Your task to perform on an android device: What's the weather? Image 0: 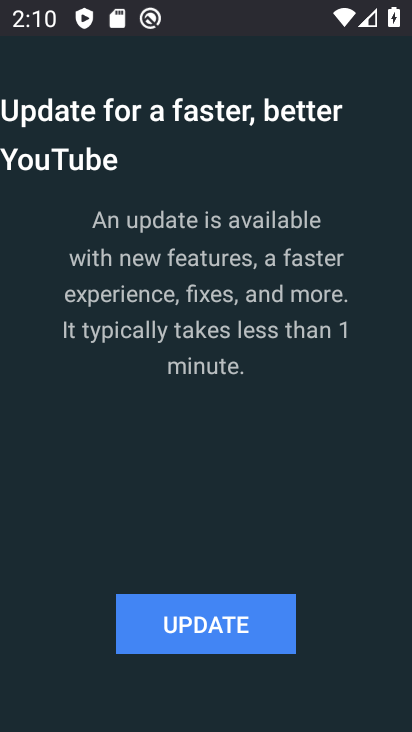
Step 0: press home button
Your task to perform on an android device: What's the weather? Image 1: 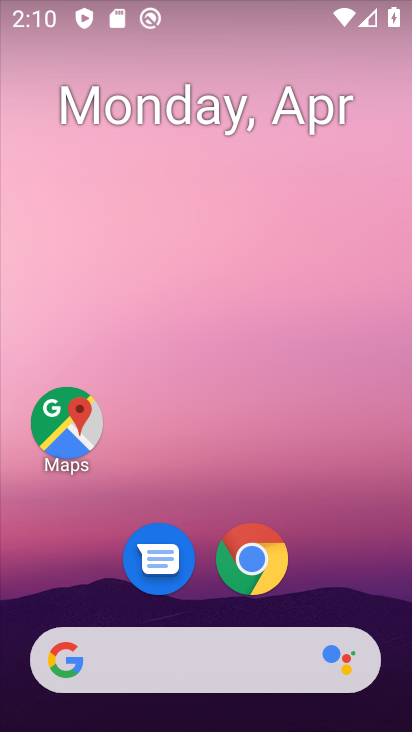
Step 1: click (255, 571)
Your task to perform on an android device: What's the weather? Image 2: 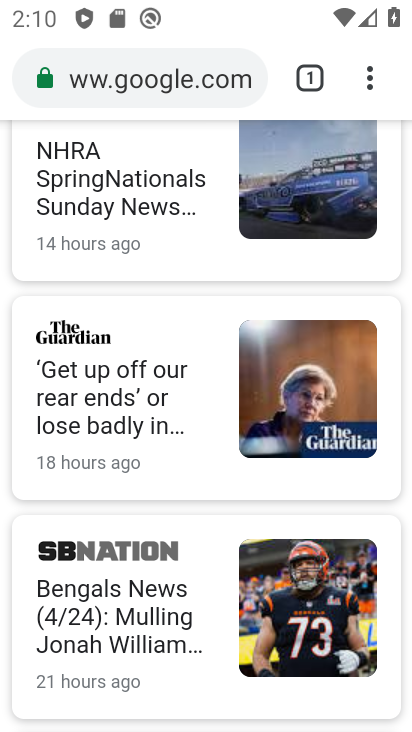
Step 2: click (315, 77)
Your task to perform on an android device: What's the weather? Image 3: 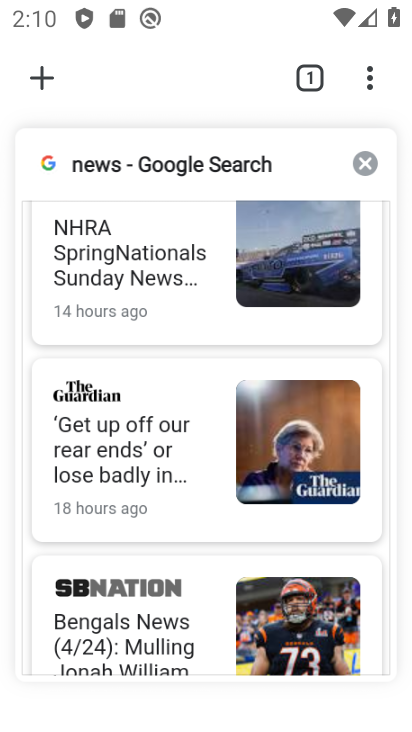
Step 3: click (40, 78)
Your task to perform on an android device: What's the weather? Image 4: 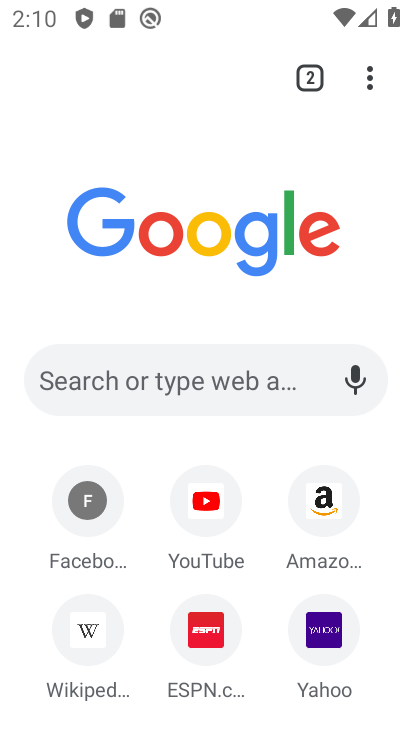
Step 4: click (109, 371)
Your task to perform on an android device: What's the weather? Image 5: 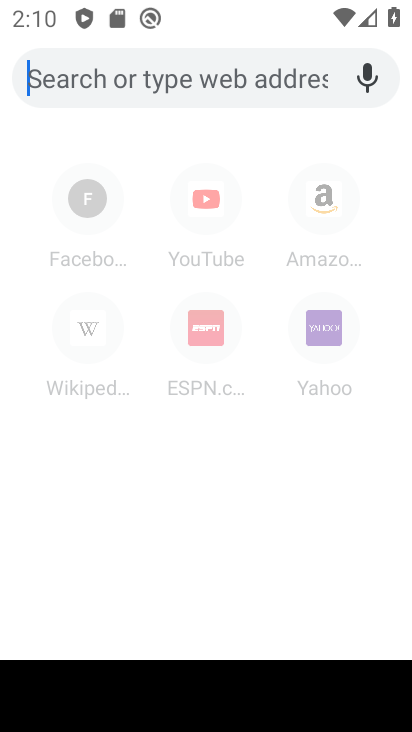
Step 5: type "whats the weather"
Your task to perform on an android device: What's the weather? Image 6: 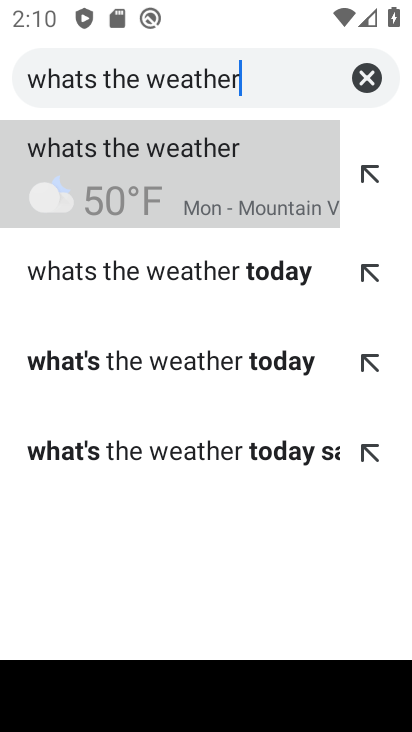
Step 6: click (121, 177)
Your task to perform on an android device: What's the weather? Image 7: 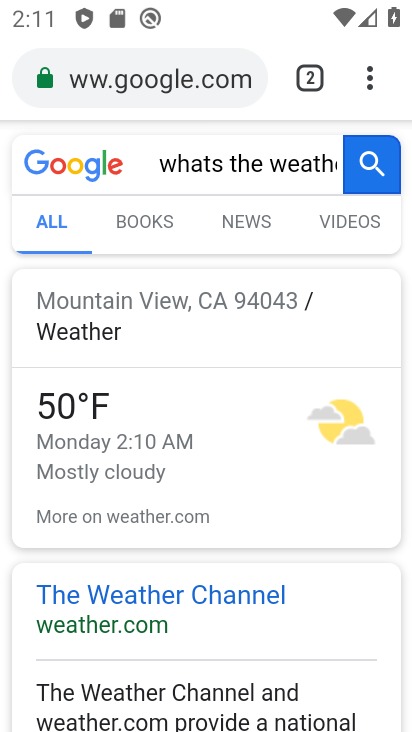
Step 7: task complete